Your task to perform on an android device: Search for vegetarian restaurants on Maps Image 0: 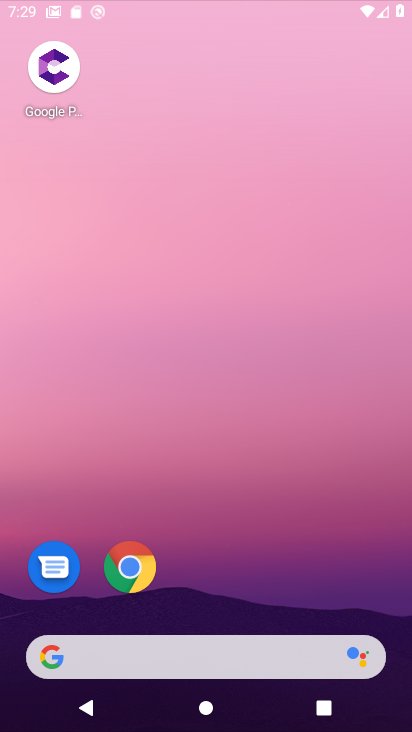
Step 0: click (266, 120)
Your task to perform on an android device: Search for vegetarian restaurants on Maps Image 1: 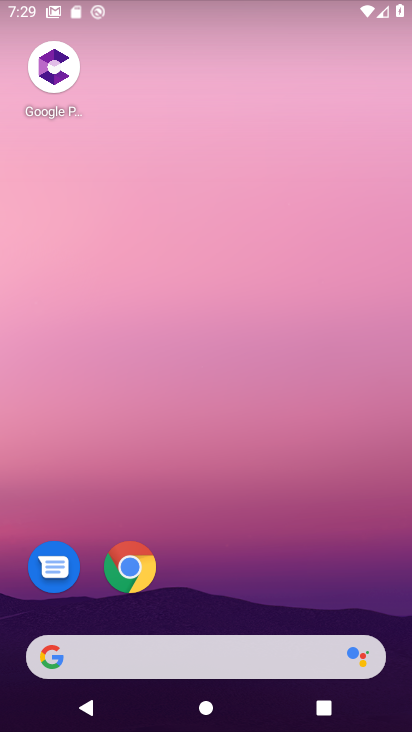
Step 1: drag from (228, 568) to (293, 158)
Your task to perform on an android device: Search for vegetarian restaurants on Maps Image 2: 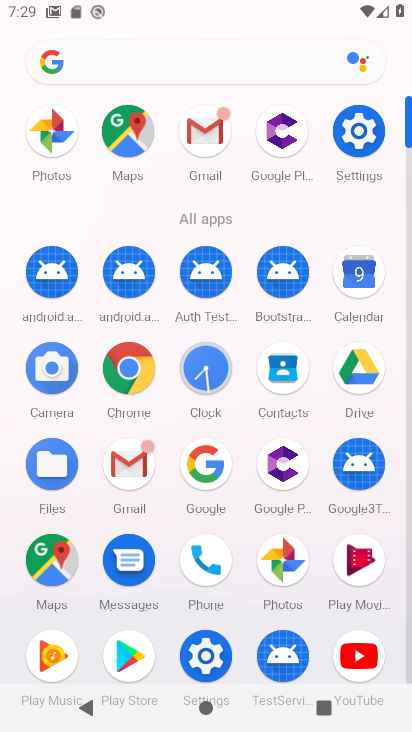
Step 2: drag from (248, 616) to (240, 245)
Your task to perform on an android device: Search for vegetarian restaurants on Maps Image 3: 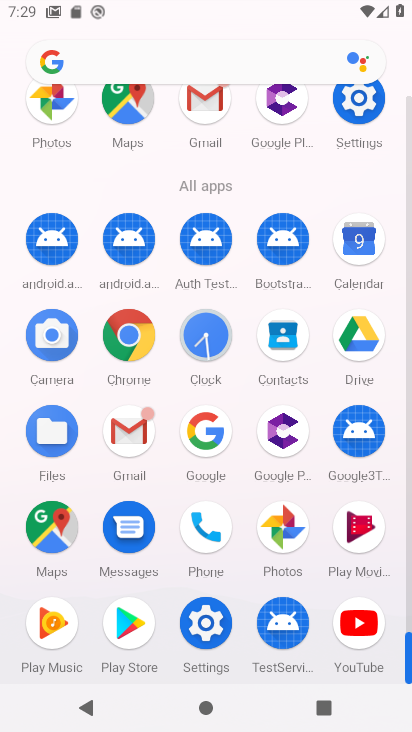
Step 3: click (46, 514)
Your task to perform on an android device: Search for vegetarian restaurants on Maps Image 4: 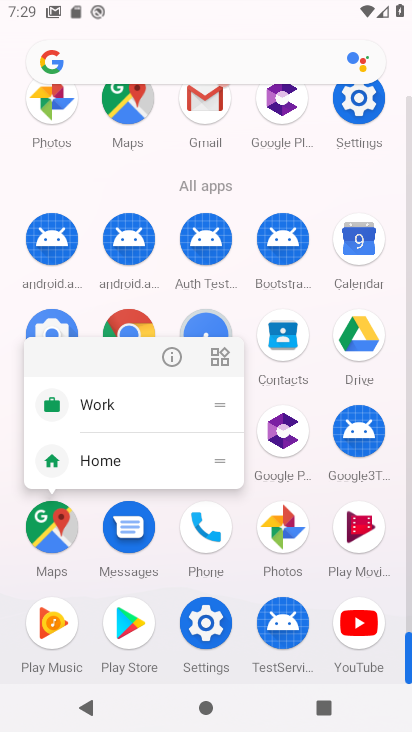
Step 4: click (170, 350)
Your task to perform on an android device: Search for vegetarian restaurants on Maps Image 5: 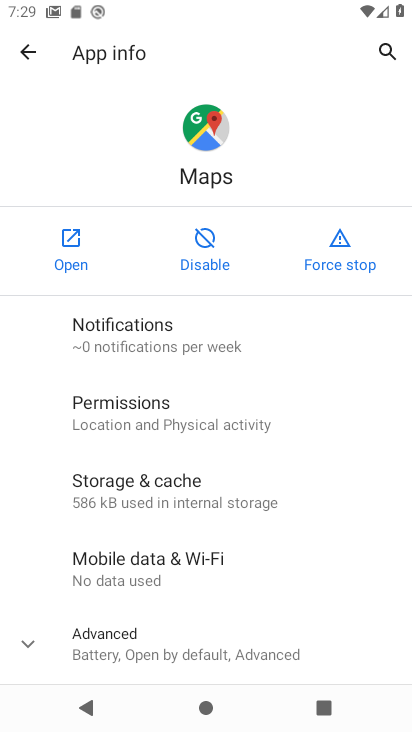
Step 5: click (61, 229)
Your task to perform on an android device: Search for vegetarian restaurants on Maps Image 6: 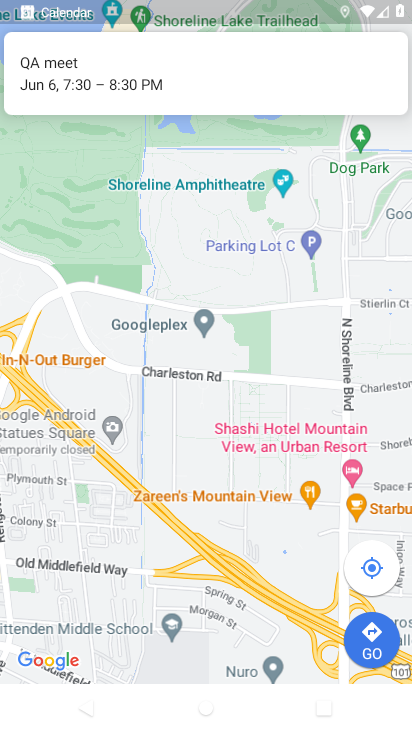
Step 6: drag from (221, 509) to (185, 196)
Your task to perform on an android device: Search for vegetarian restaurants on Maps Image 7: 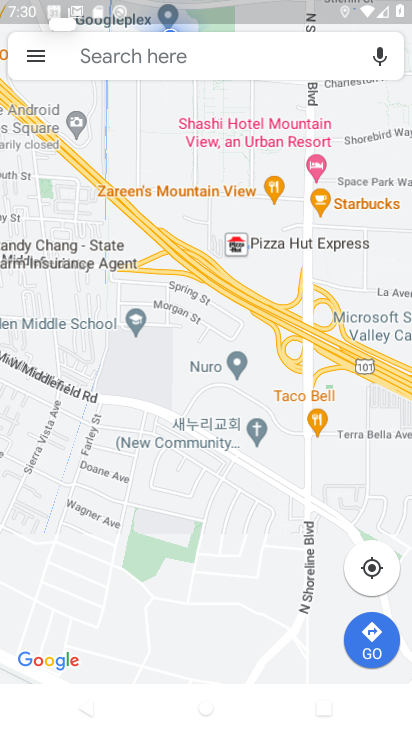
Step 7: click (196, 293)
Your task to perform on an android device: Search for vegetarian restaurants on Maps Image 8: 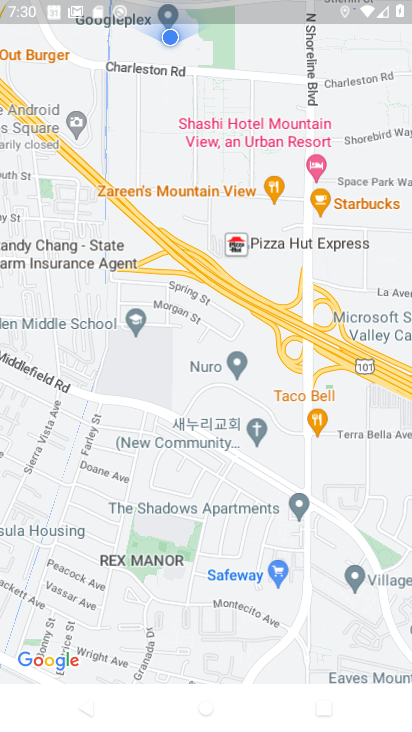
Step 8: drag from (243, 145) to (185, 444)
Your task to perform on an android device: Search for vegetarian restaurants on Maps Image 9: 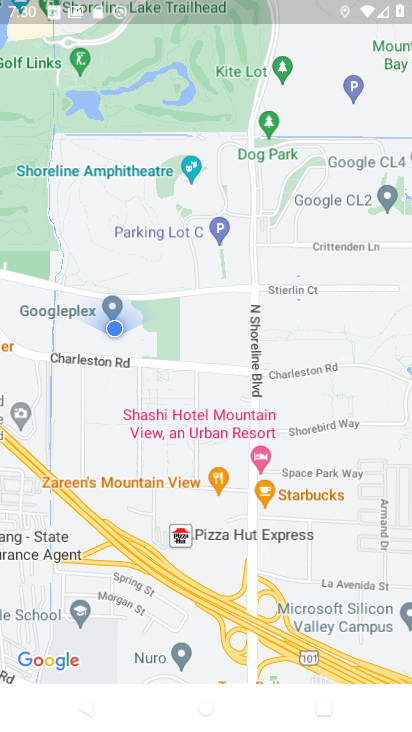
Step 9: click (205, 87)
Your task to perform on an android device: Search for vegetarian restaurants on Maps Image 10: 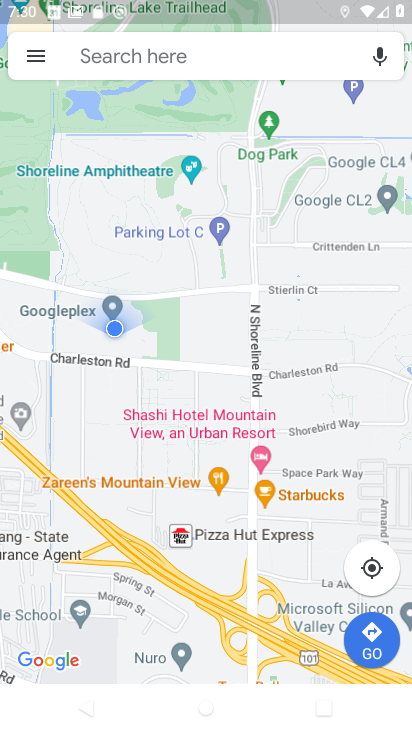
Step 10: click (183, 48)
Your task to perform on an android device: Search for vegetarian restaurants on Maps Image 11: 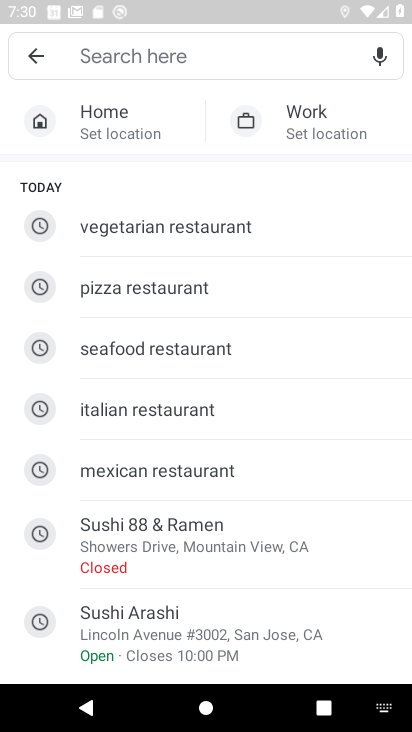
Step 11: click (173, 223)
Your task to perform on an android device: Search for vegetarian restaurants on Maps Image 12: 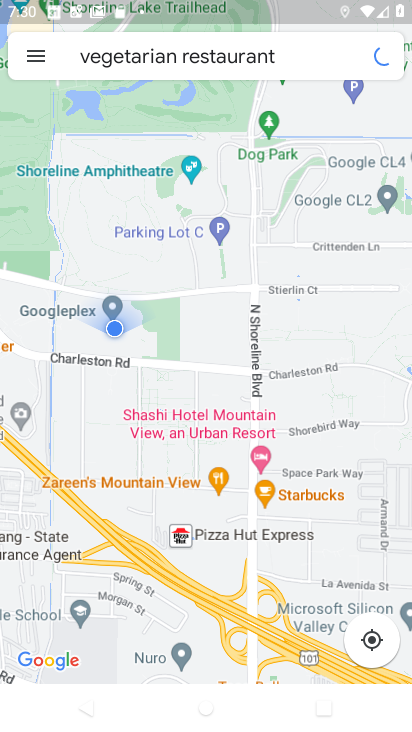
Step 12: task complete